Your task to perform on an android device: toggle improve location accuracy Image 0: 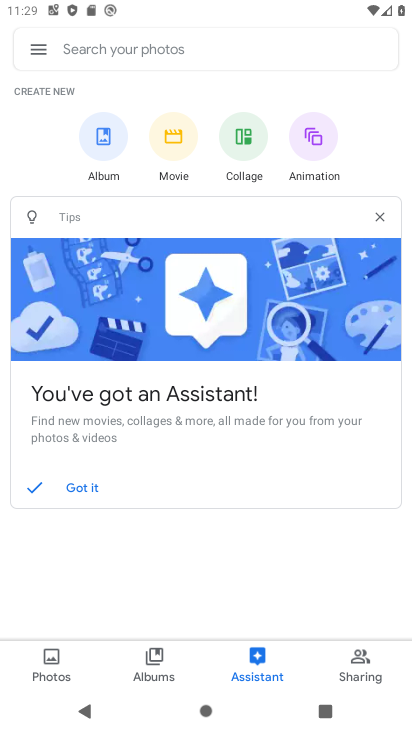
Step 0: press home button
Your task to perform on an android device: toggle improve location accuracy Image 1: 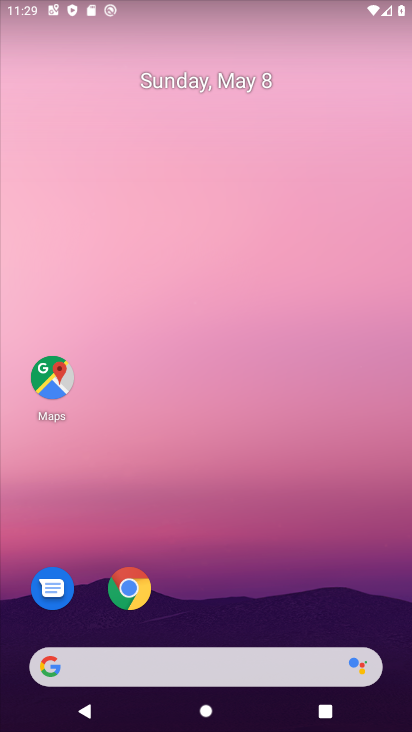
Step 1: drag from (201, 560) to (76, 76)
Your task to perform on an android device: toggle improve location accuracy Image 2: 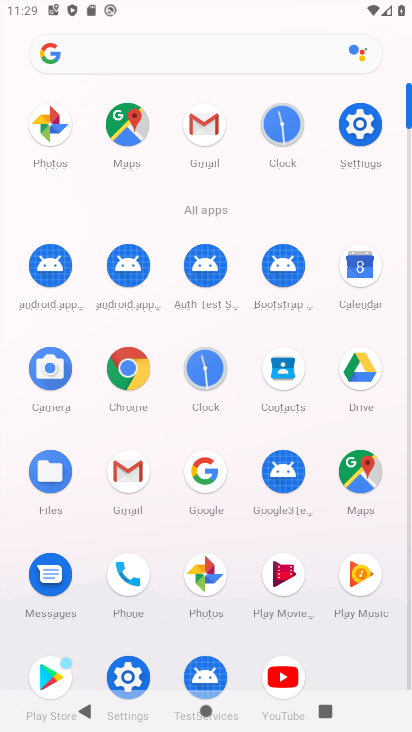
Step 2: click (352, 123)
Your task to perform on an android device: toggle improve location accuracy Image 3: 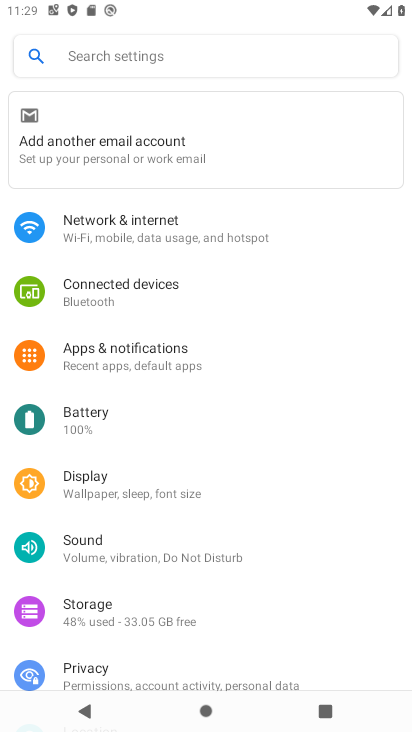
Step 3: drag from (113, 636) to (90, 256)
Your task to perform on an android device: toggle improve location accuracy Image 4: 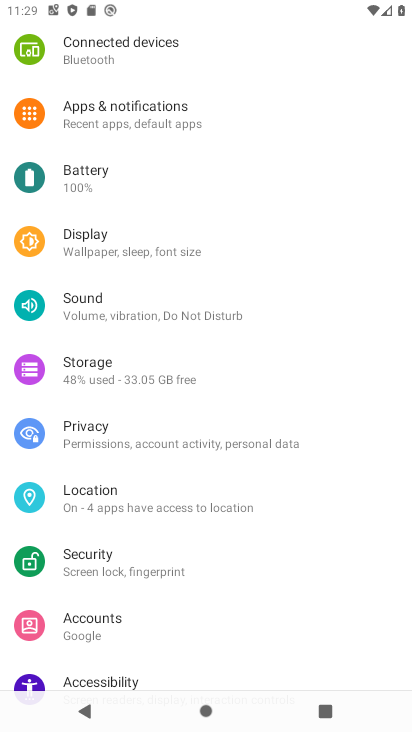
Step 4: click (78, 489)
Your task to perform on an android device: toggle improve location accuracy Image 5: 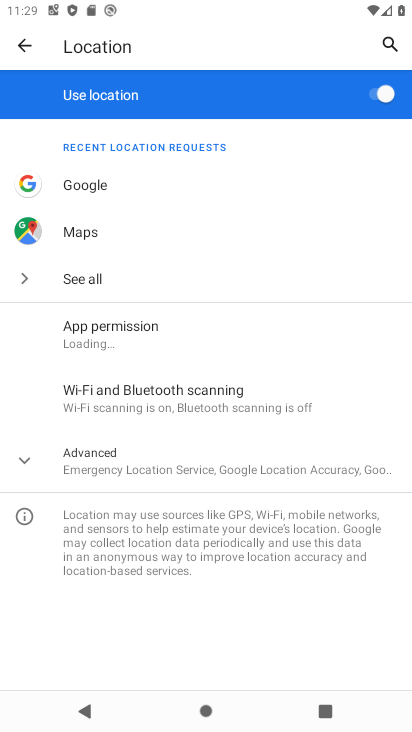
Step 5: click (50, 454)
Your task to perform on an android device: toggle improve location accuracy Image 6: 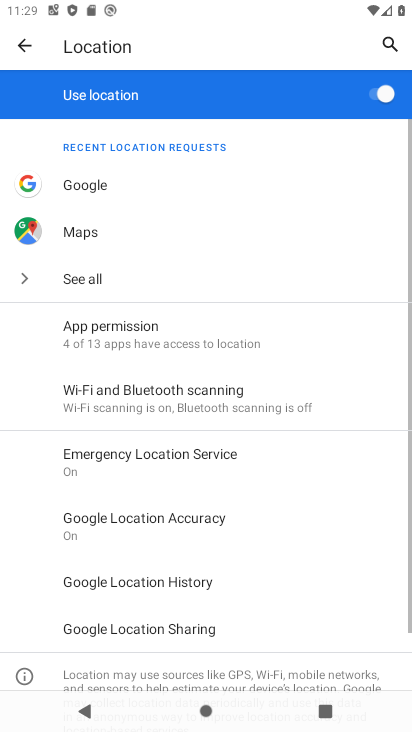
Step 6: click (168, 519)
Your task to perform on an android device: toggle improve location accuracy Image 7: 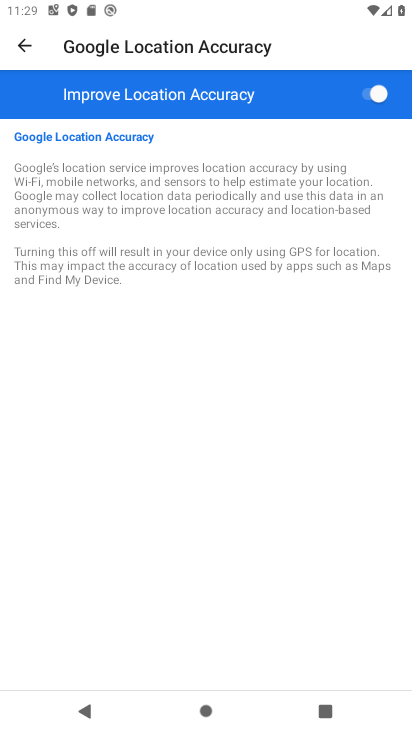
Step 7: click (379, 90)
Your task to perform on an android device: toggle improve location accuracy Image 8: 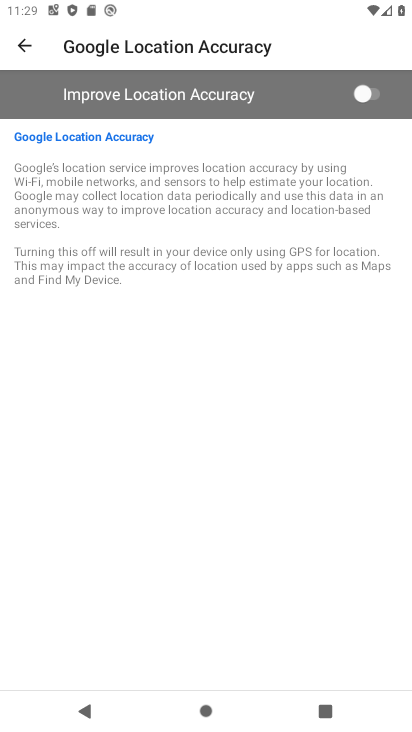
Step 8: task complete